Your task to perform on an android device: set the timer Image 0: 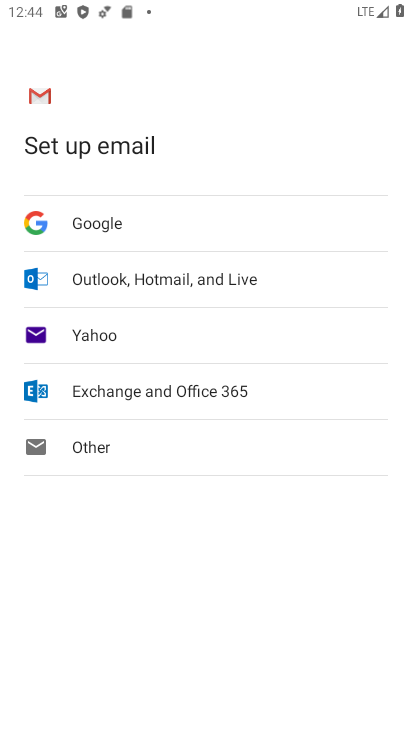
Step 0: press home button
Your task to perform on an android device: set the timer Image 1: 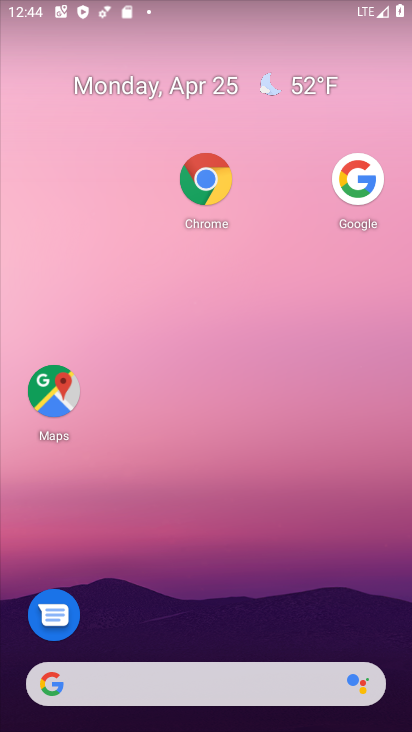
Step 1: drag from (192, 672) to (275, 88)
Your task to perform on an android device: set the timer Image 2: 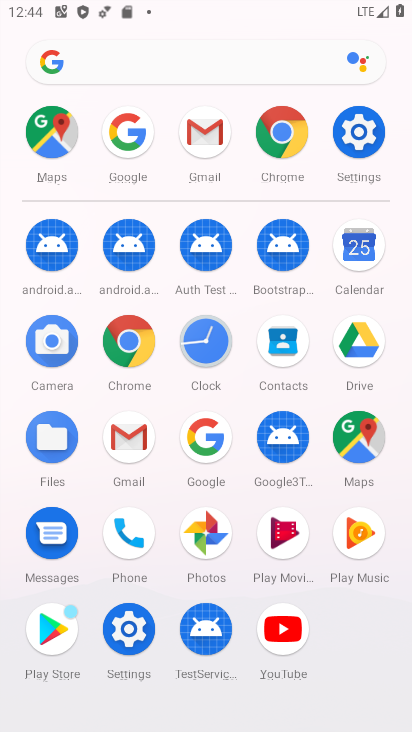
Step 2: click (206, 354)
Your task to perform on an android device: set the timer Image 3: 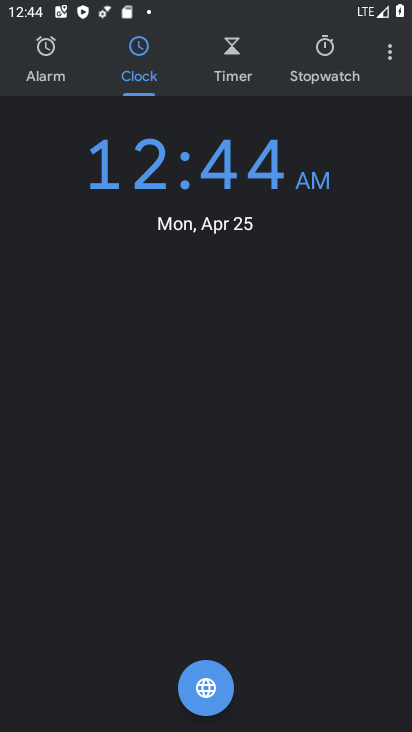
Step 3: click (243, 71)
Your task to perform on an android device: set the timer Image 4: 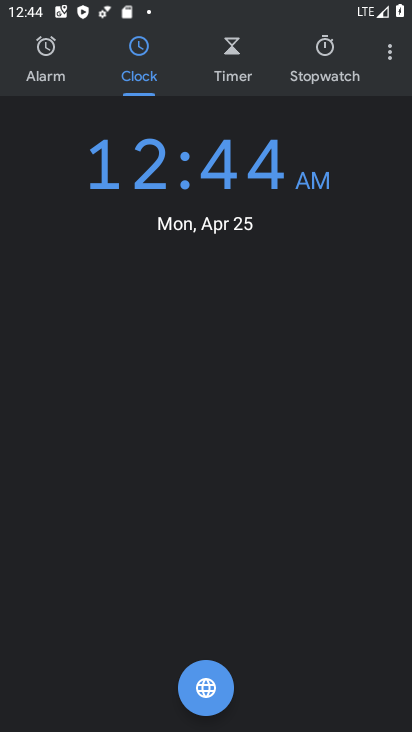
Step 4: click (236, 77)
Your task to perform on an android device: set the timer Image 5: 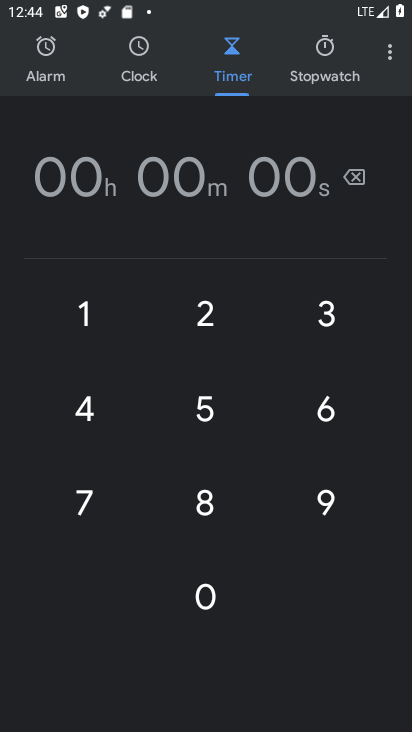
Step 5: click (79, 405)
Your task to perform on an android device: set the timer Image 6: 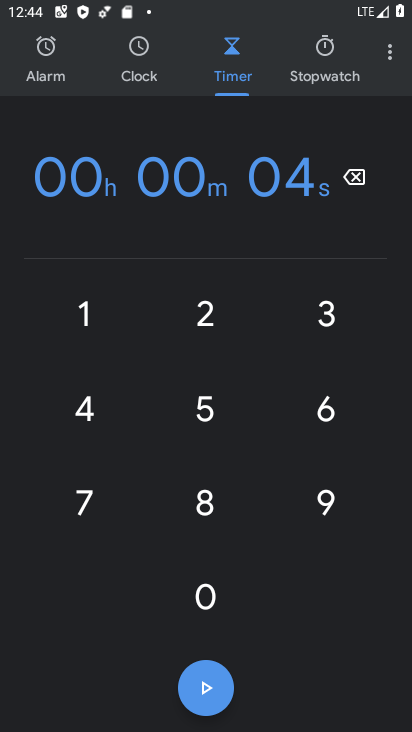
Step 6: click (91, 417)
Your task to perform on an android device: set the timer Image 7: 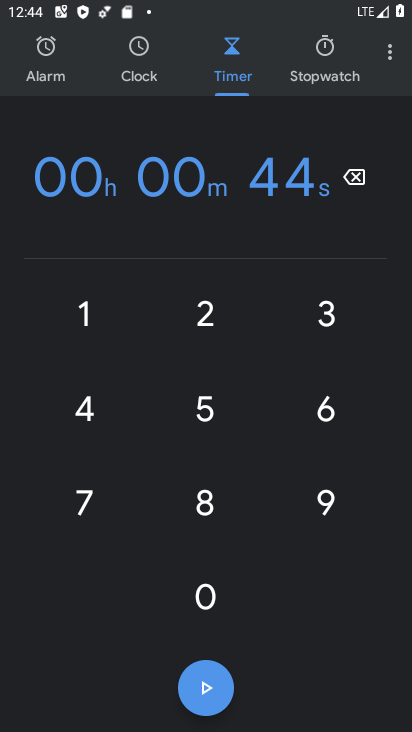
Step 7: click (211, 687)
Your task to perform on an android device: set the timer Image 8: 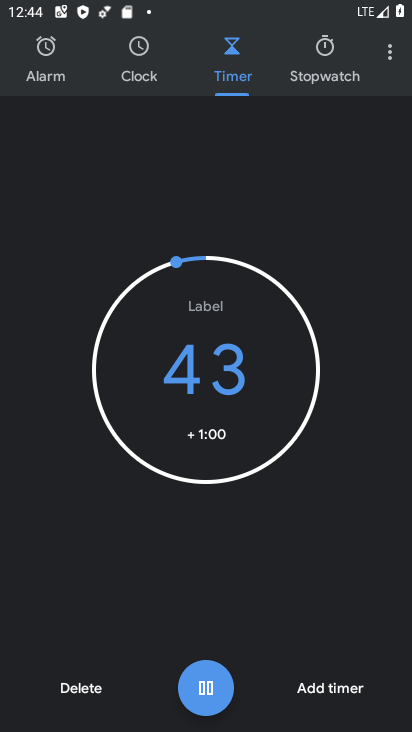
Step 8: click (210, 688)
Your task to perform on an android device: set the timer Image 9: 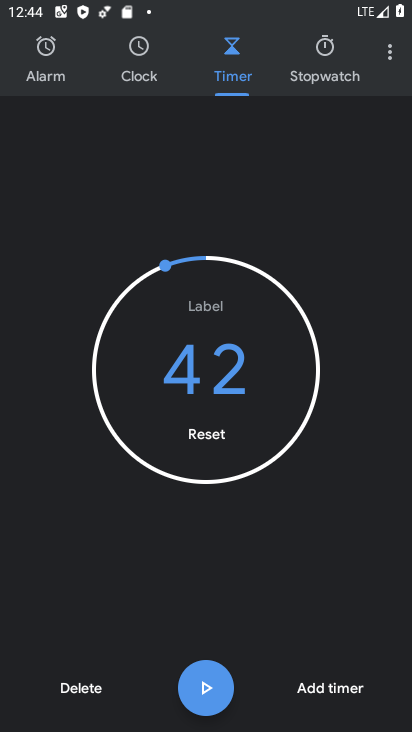
Step 9: task complete